Your task to perform on an android device: Look up the best rated headphones on Aliexpress Image 0: 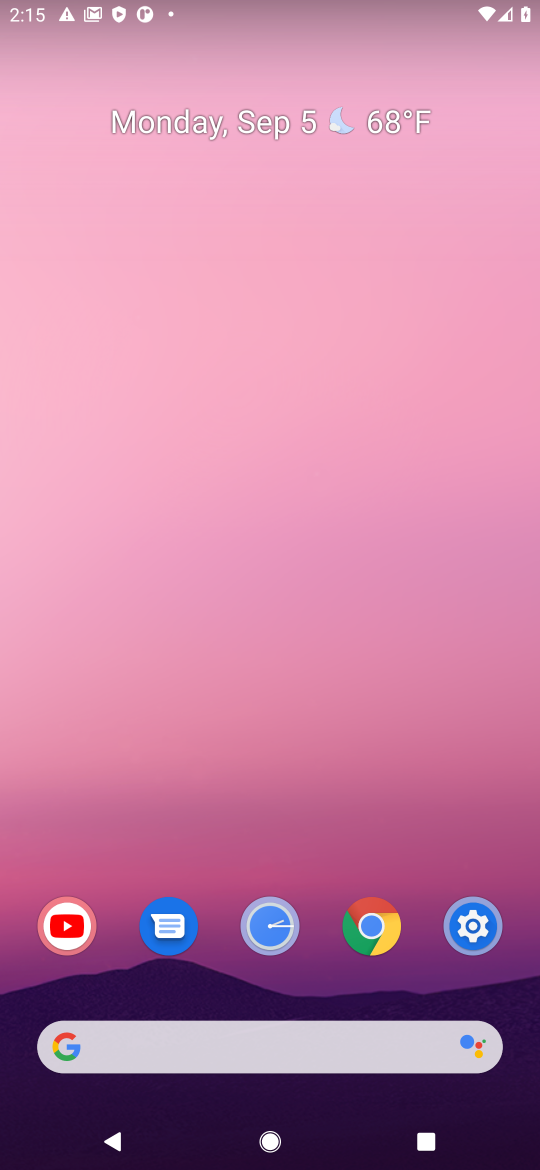
Step 0: click (370, 931)
Your task to perform on an android device: Look up the best rated headphones on Aliexpress Image 1: 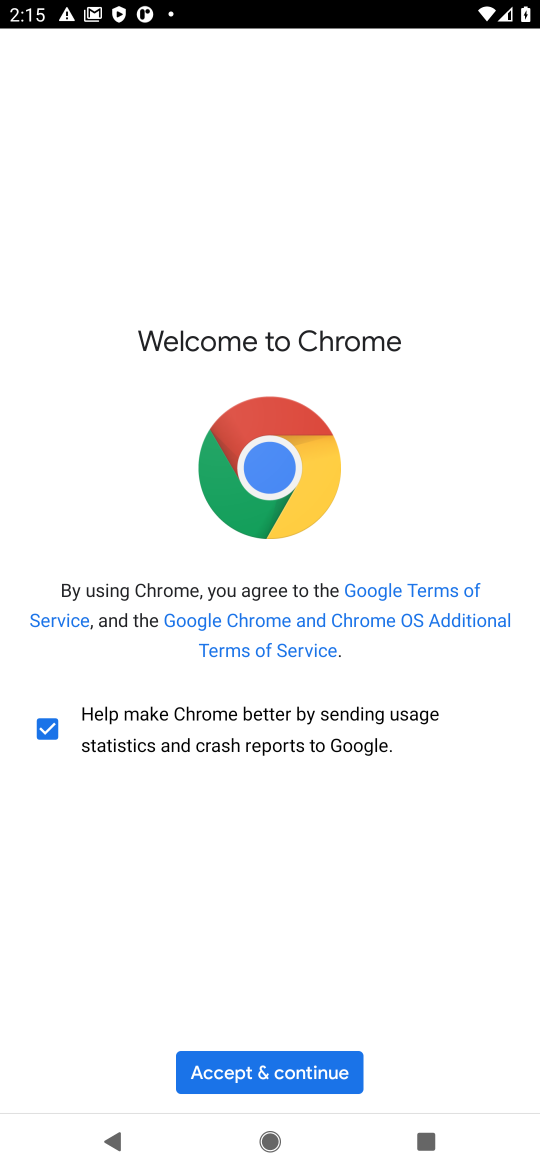
Step 1: click (270, 1071)
Your task to perform on an android device: Look up the best rated headphones on Aliexpress Image 2: 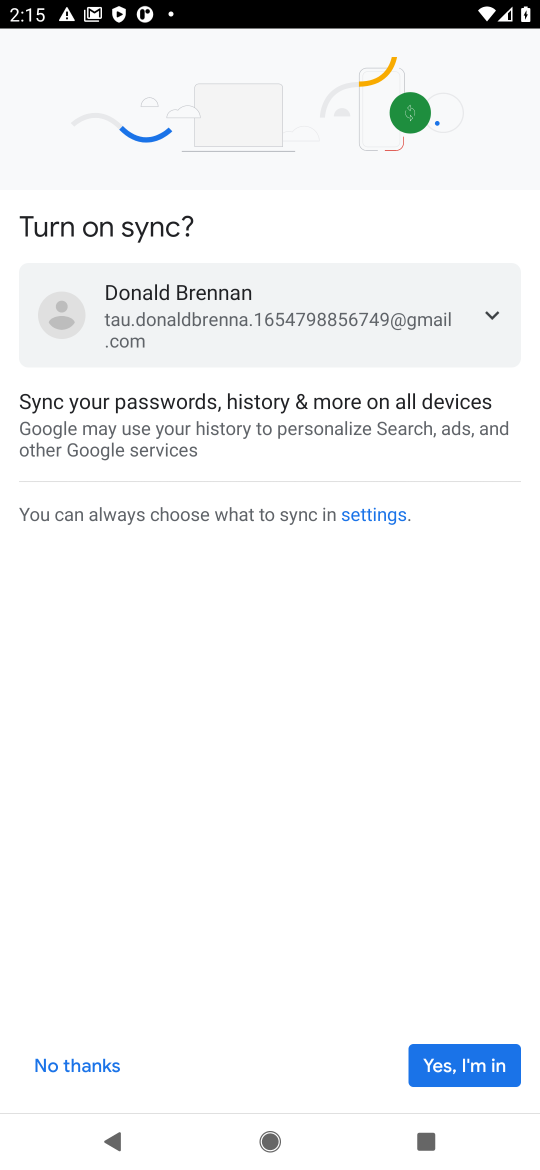
Step 2: click (454, 1070)
Your task to perform on an android device: Look up the best rated headphones on Aliexpress Image 3: 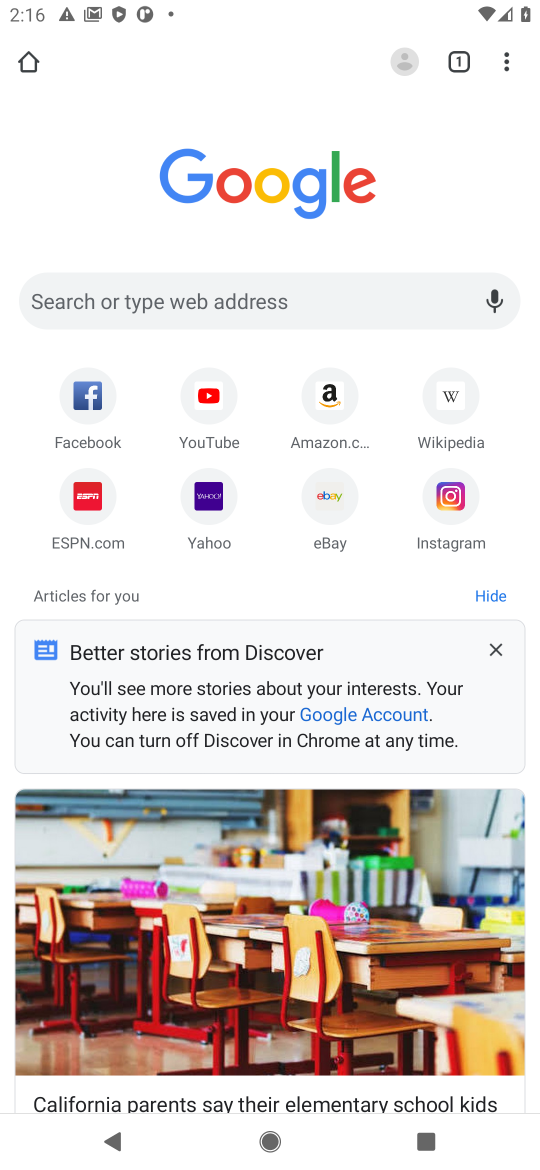
Step 3: click (219, 309)
Your task to perform on an android device: Look up the best rated headphones on Aliexpress Image 4: 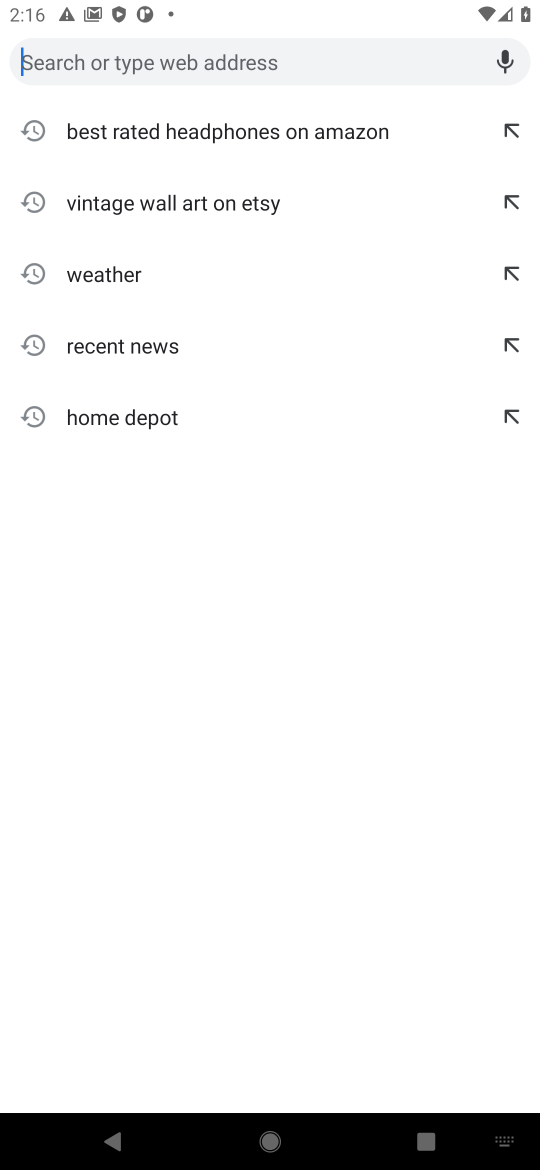
Step 4: type "aliexpress"
Your task to perform on an android device: Look up the best rated headphones on Aliexpress Image 5: 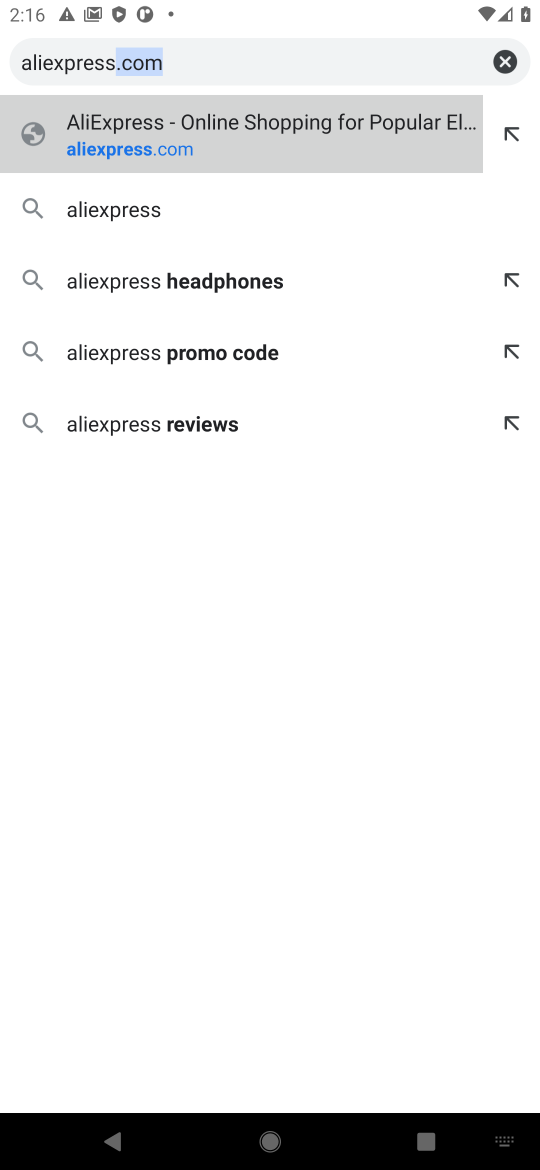
Step 5: click (192, 147)
Your task to perform on an android device: Look up the best rated headphones on Aliexpress Image 6: 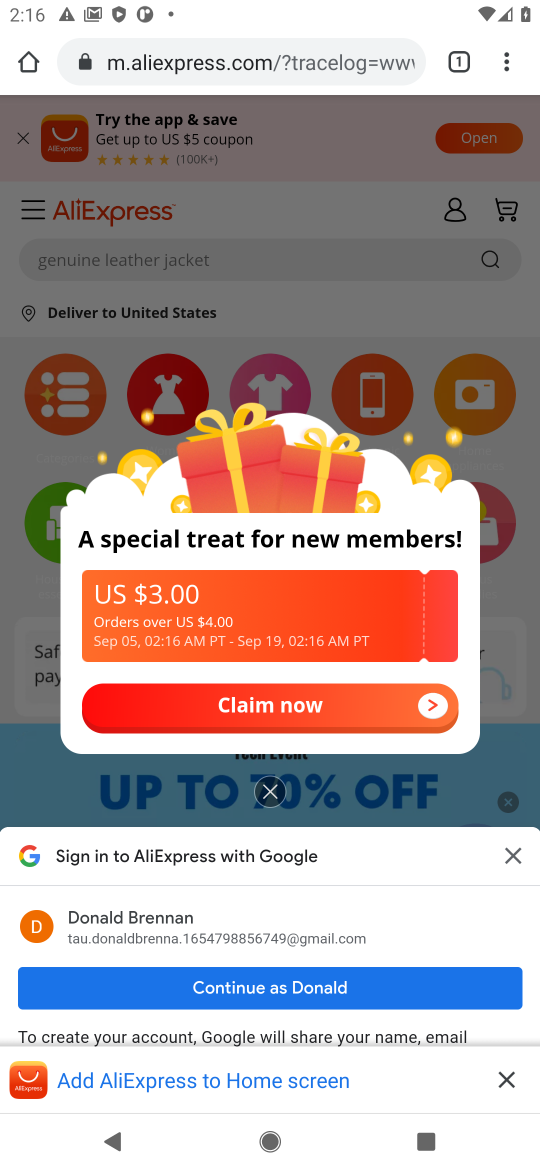
Step 6: click (381, 344)
Your task to perform on an android device: Look up the best rated headphones on Aliexpress Image 7: 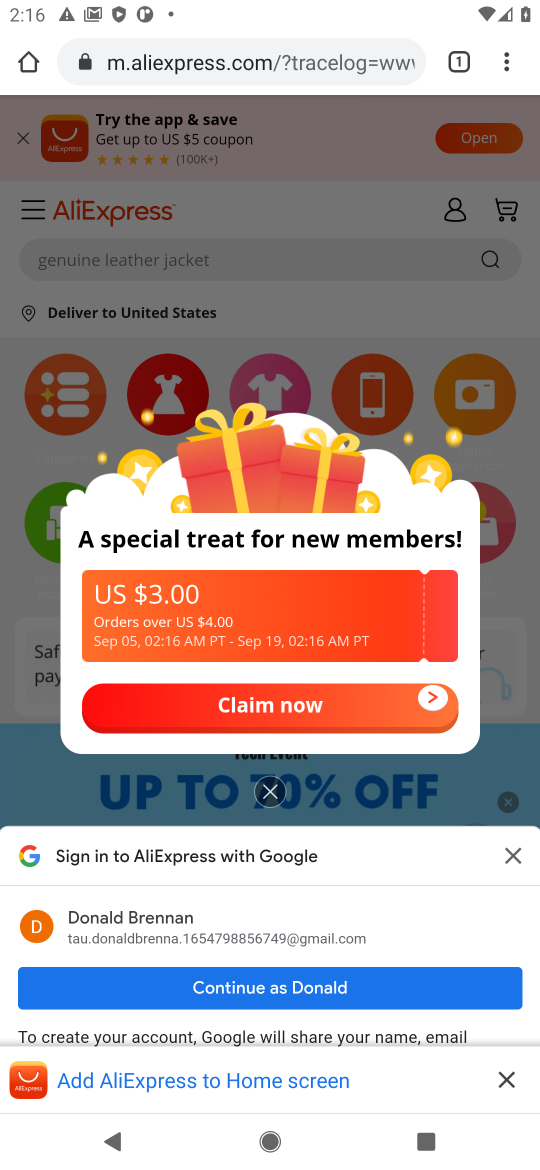
Step 7: click (336, 280)
Your task to perform on an android device: Look up the best rated headphones on Aliexpress Image 8: 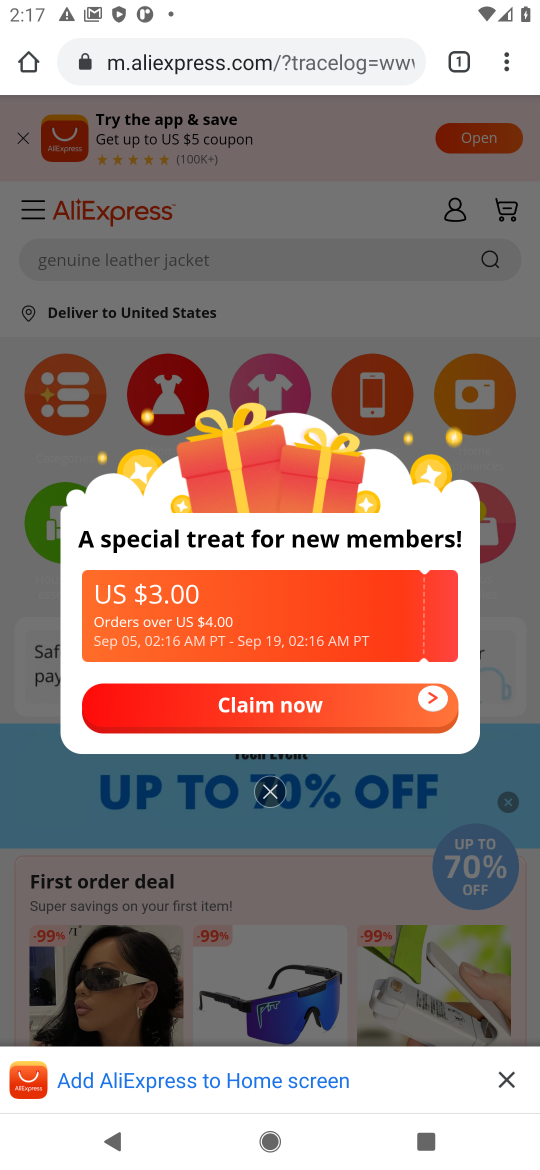
Step 8: click (311, 264)
Your task to perform on an android device: Look up the best rated headphones on Aliexpress Image 9: 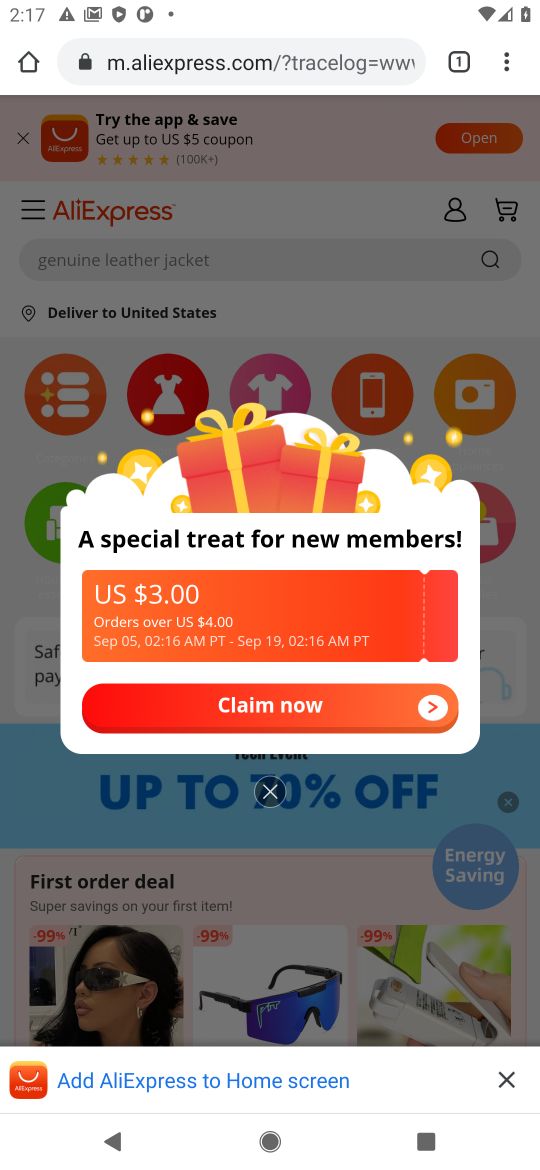
Step 9: click (267, 797)
Your task to perform on an android device: Look up the best rated headphones on Aliexpress Image 10: 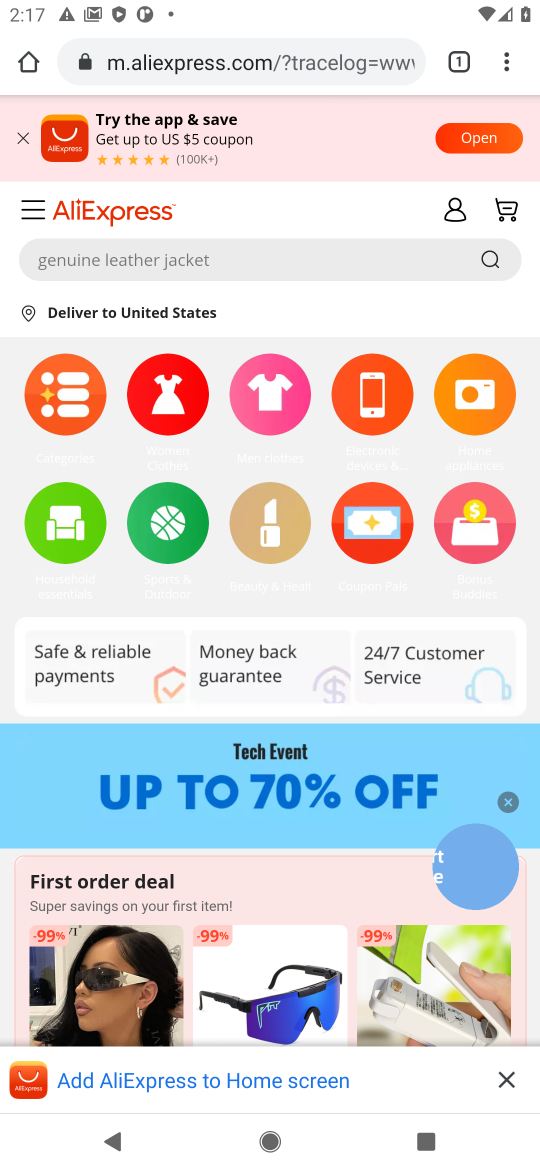
Step 10: click (235, 270)
Your task to perform on an android device: Look up the best rated headphones on Aliexpress Image 11: 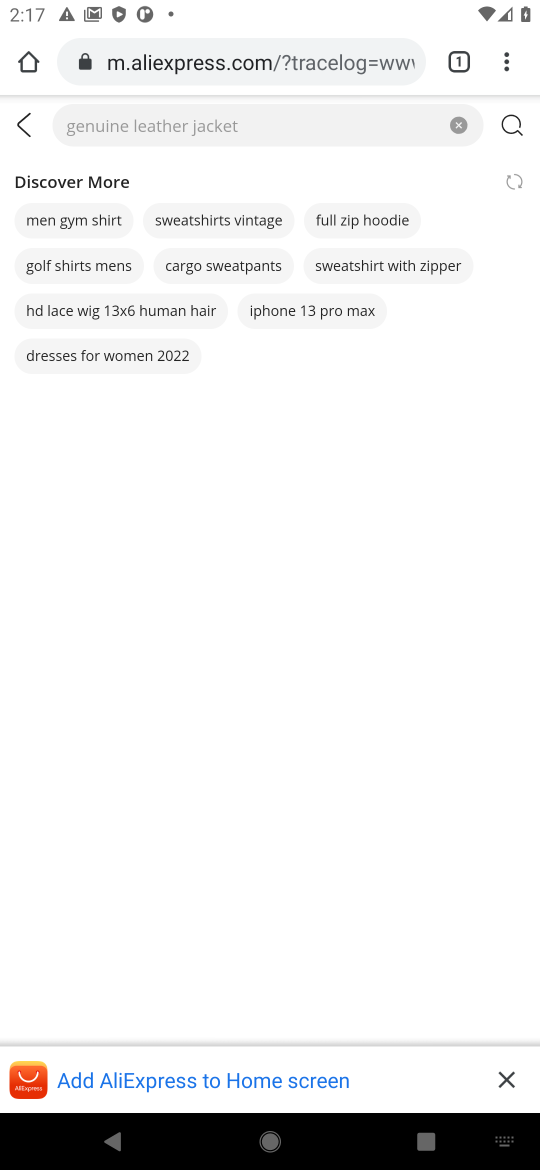
Step 11: type "best rated headphones"
Your task to perform on an android device: Look up the best rated headphones on Aliexpress Image 12: 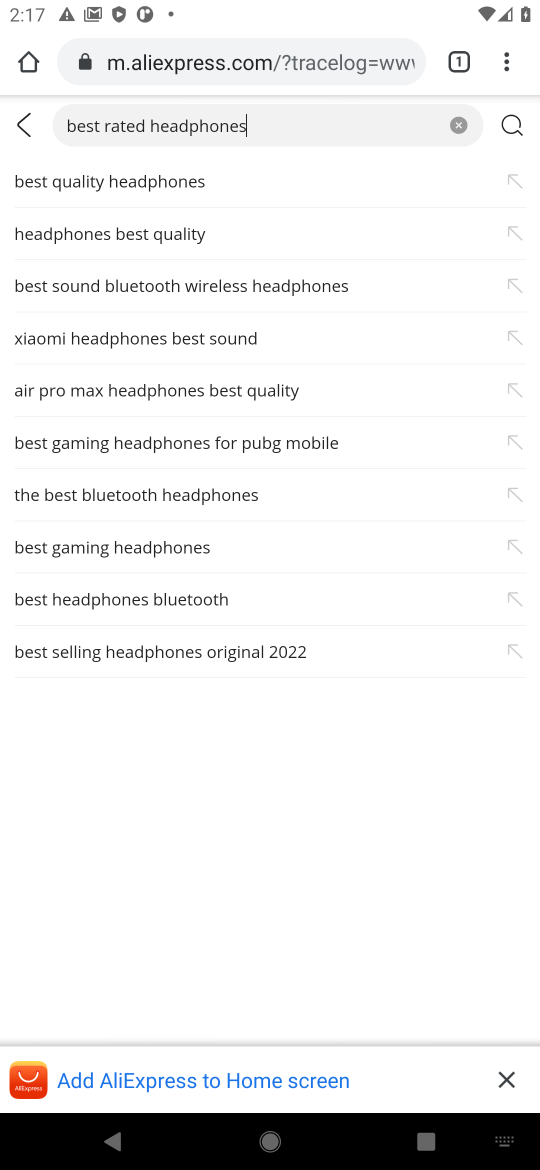
Step 12: click (183, 184)
Your task to perform on an android device: Look up the best rated headphones on Aliexpress Image 13: 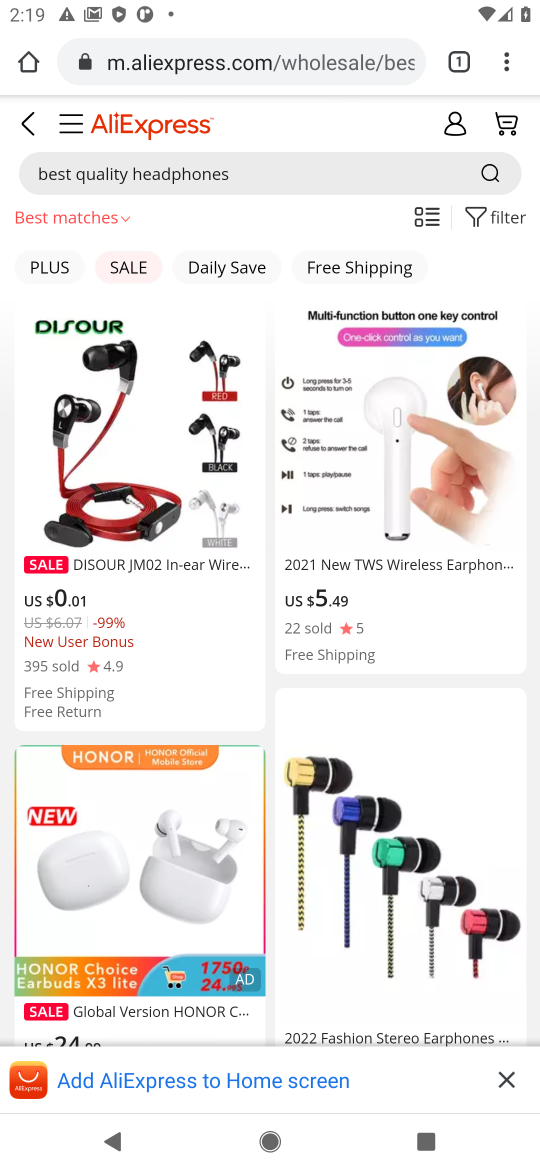
Step 13: task complete